Your task to perform on an android device: Search for shimano brake pads on Walmart Image 0: 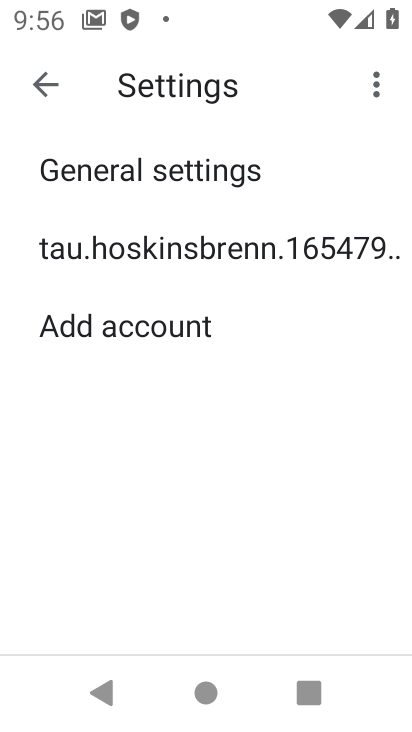
Step 0: press home button
Your task to perform on an android device: Search for shimano brake pads on Walmart Image 1: 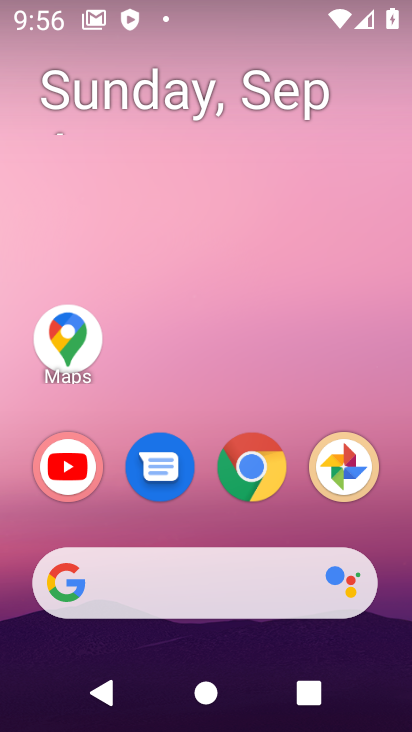
Step 1: type "walmart"
Your task to perform on an android device: Search for shimano brake pads on Walmart Image 2: 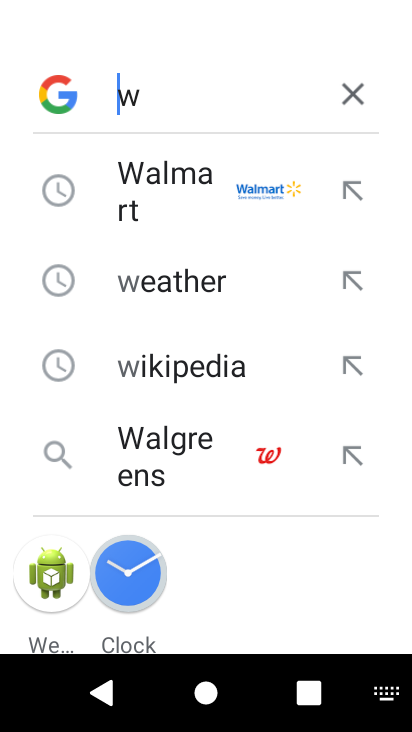
Step 2: click (160, 177)
Your task to perform on an android device: Search for shimano brake pads on Walmart Image 3: 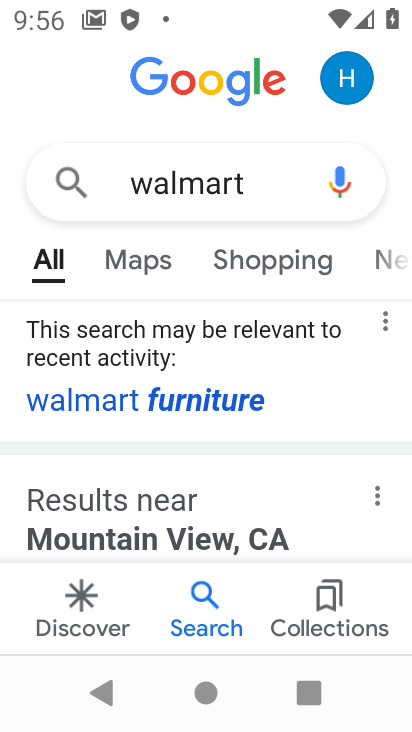
Step 3: drag from (348, 486) to (399, 104)
Your task to perform on an android device: Search for shimano brake pads on Walmart Image 4: 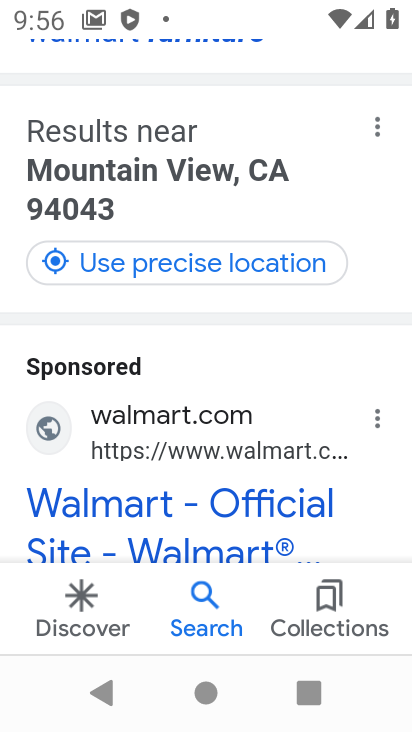
Step 4: drag from (362, 452) to (406, 123)
Your task to perform on an android device: Search for shimano brake pads on Walmart Image 5: 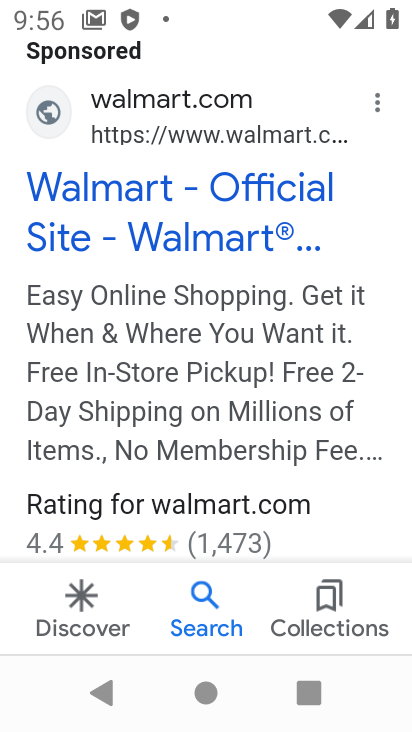
Step 5: drag from (354, 502) to (358, 126)
Your task to perform on an android device: Search for shimano brake pads on Walmart Image 6: 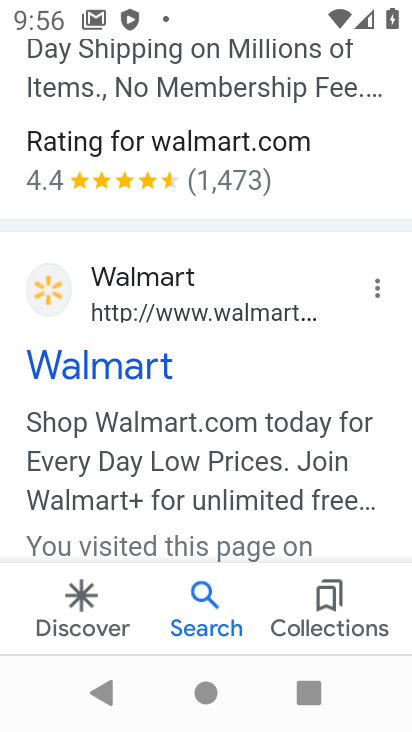
Step 6: click (105, 367)
Your task to perform on an android device: Search for shimano brake pads on Walmart Image 7: 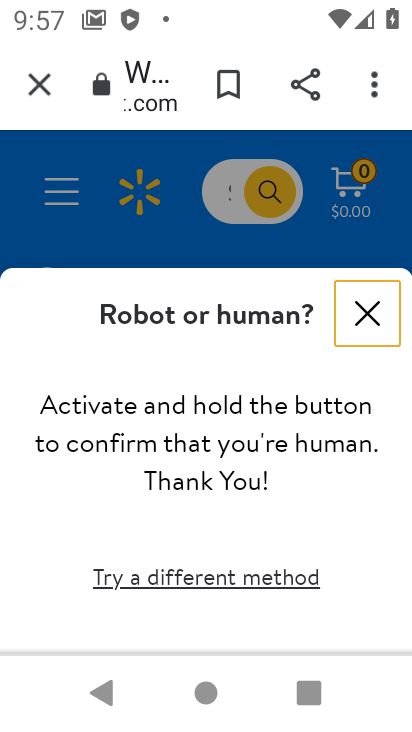
Step 7: click (260, 191)
Your task to perform on an android device: Search for shimano brake pads on Walmart Image 8: 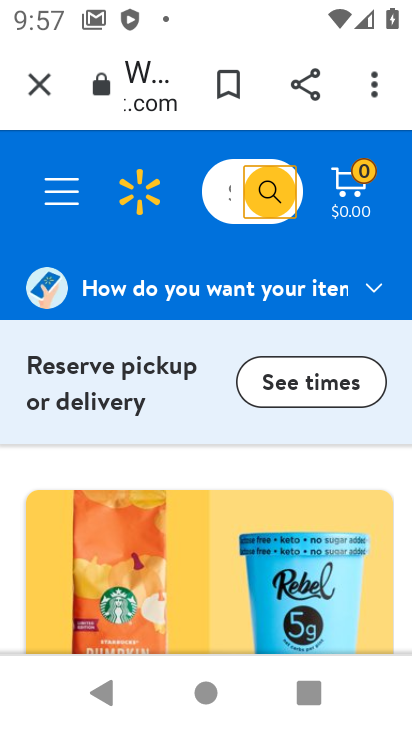
Step 8: click (261, 194)
Your task to perform on an android device: Search for shimano brake pads on Walmart Image 9: 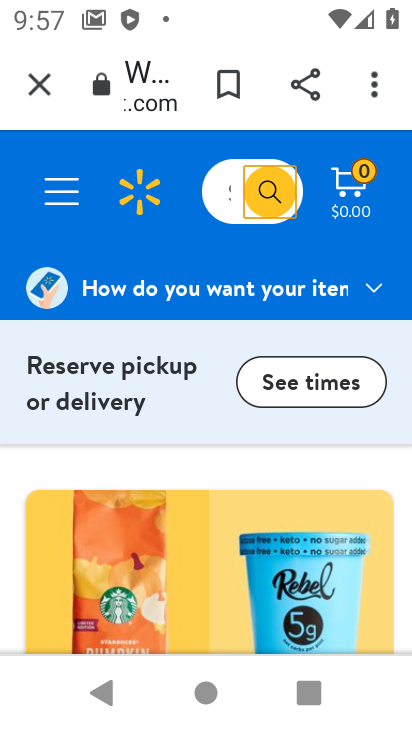
Step 9: click (267, 198)
Your task to perform on an android device: Search for shimano brake pads on Walmart Image 10: 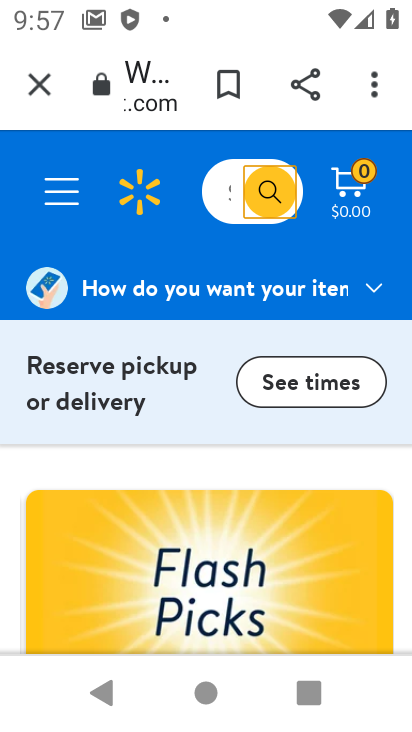
Step 10: click (258, 182)
Your task to perform on an android device: Search for shimano brake pads on Walmart Image 11: 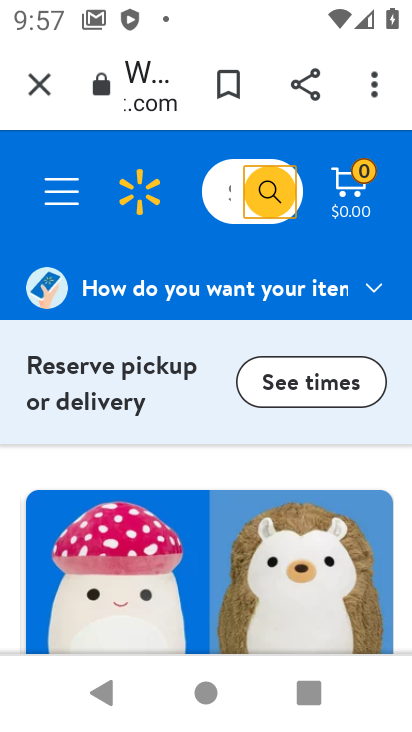
Step 11: click (263, 187)
Your task to perform on an android device: Search for shimano brake pads on Walmart Image 12: 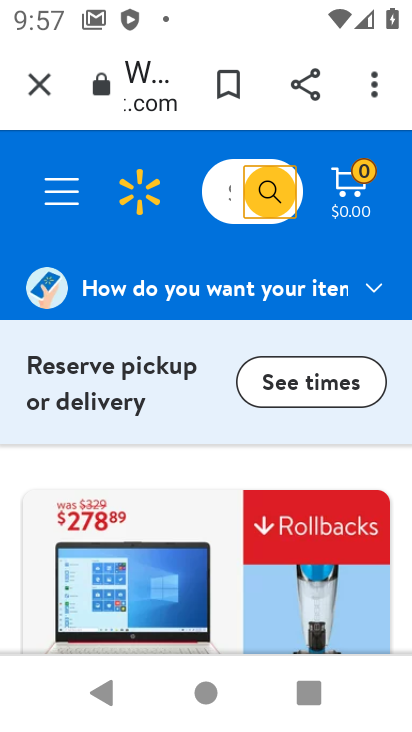
Step 12: click (260, 196)
Your task to perform on an android device: Search for shimano brake pads on Walmart Image 13: 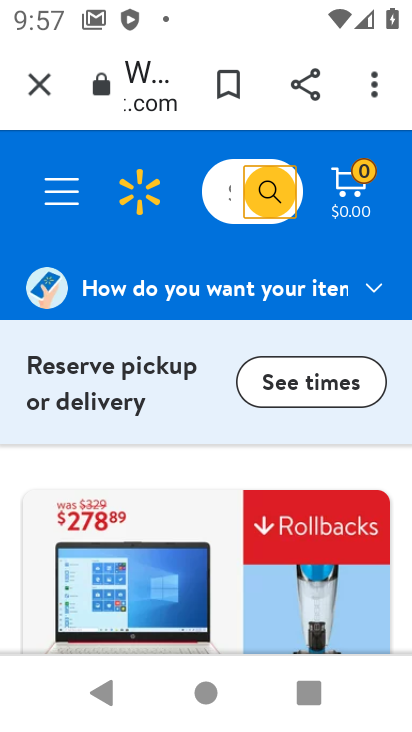
Step 13: click (261, 196)
Your task to perform on an android device: Search for shimano brake pads on Walmart Image 14: 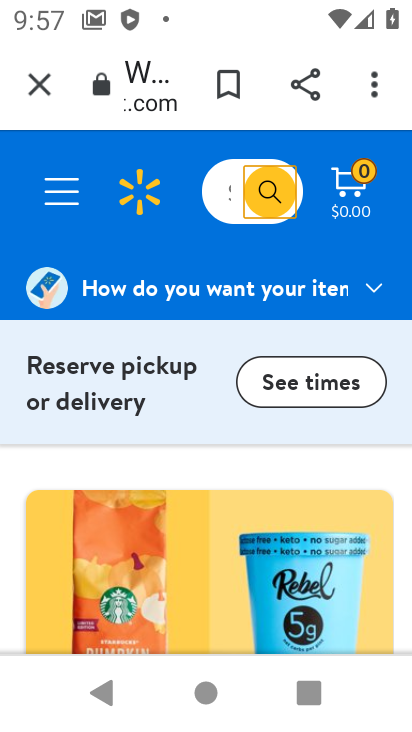
Step 14: click (265, 198)
Your task to perform on an android device: Search for shimano brake pads on Walmart Image 15: 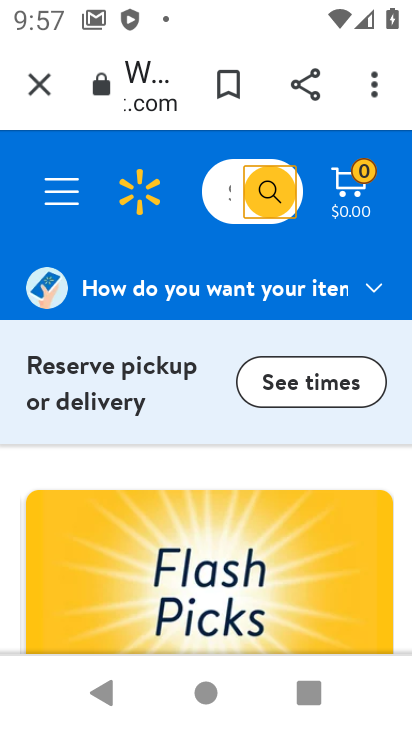
Step 15: click (264, 197)
Your task to perform on an android device: Search for shimano brake pads on Walmart Image 16: 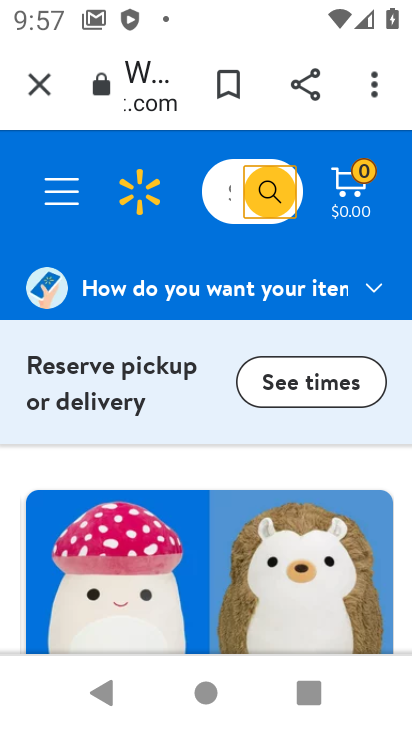
Step 16: click (264, 197)
Your task to perform on an android device: Search for shimano brake pads on Walmart Image 17: 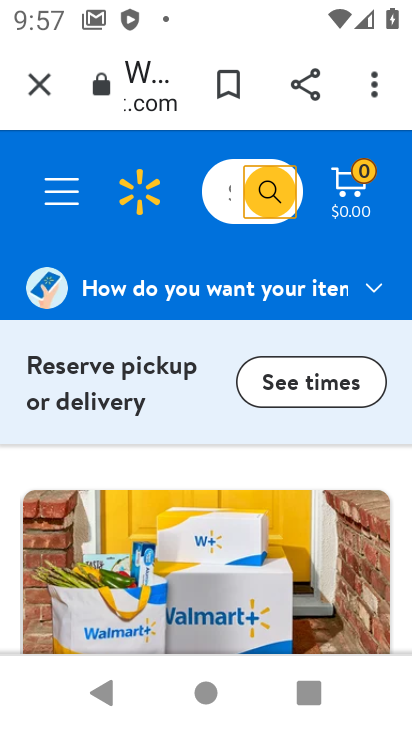
Step 17: click (264, 197)
Your task to perform on an android device: Search for shimano brake pads on Walmart Image 18: 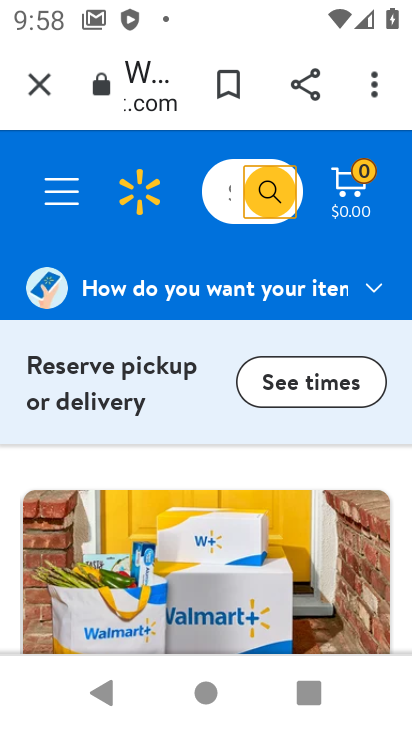
Step 18: task complete